Your task to perform on an android device: Go to settings Image 0: 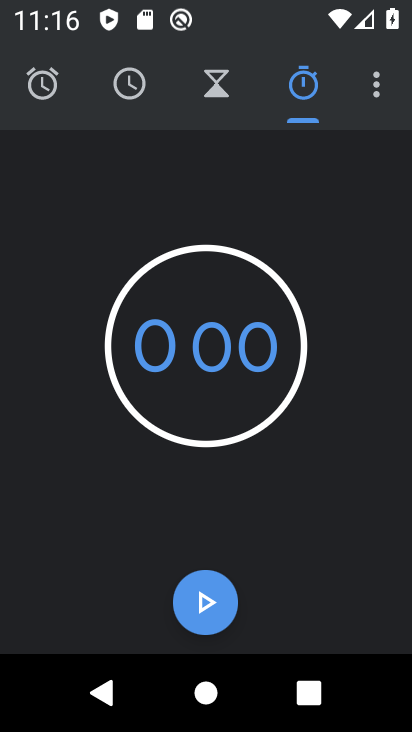
Step 0: press home button
Your task to perform on an android device: Go to settings Image 1: 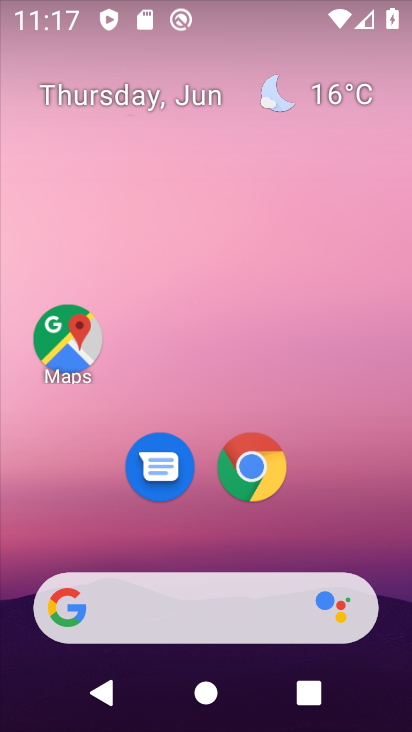
Step 1: drag from (387, 610) to (347, 122)
Your task to perform on an android device: Go to settings Image 2: 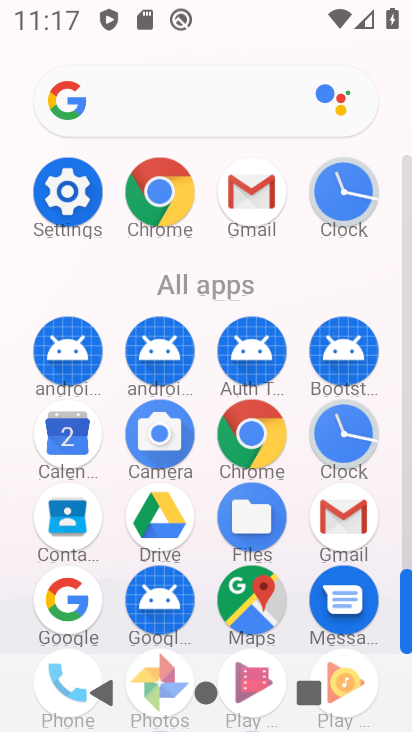
Step 2: drag from (404, 546) to (396, 457)
Your task to perform on an android device: Go to settings Image 3: 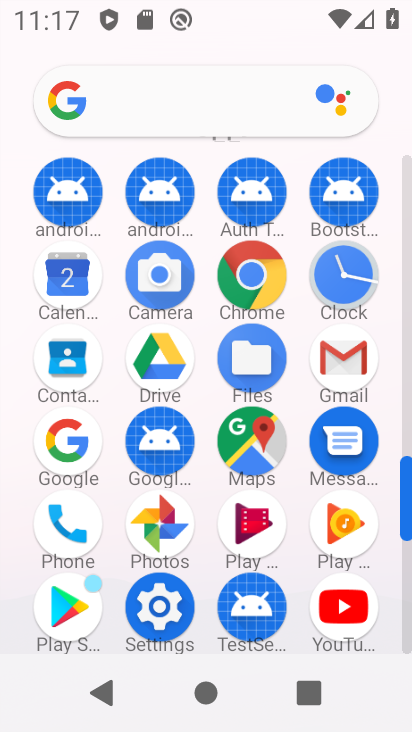
Step 3: click (158, 605)
Your task to perform on an android device: Go to settings Image 4: 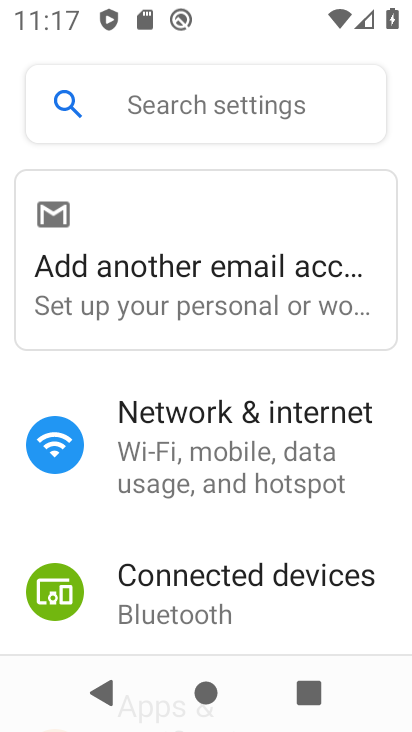
Step 4: task complete